Your task to perform on an android device: Open internet settings Image 0: 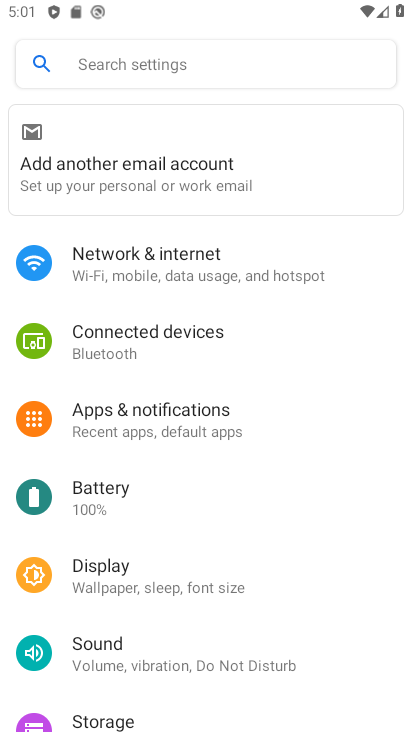
Step 0: drag from (282, 560) to (290, 253)
Your task to perform on an android device: Open internet settings Image 1: 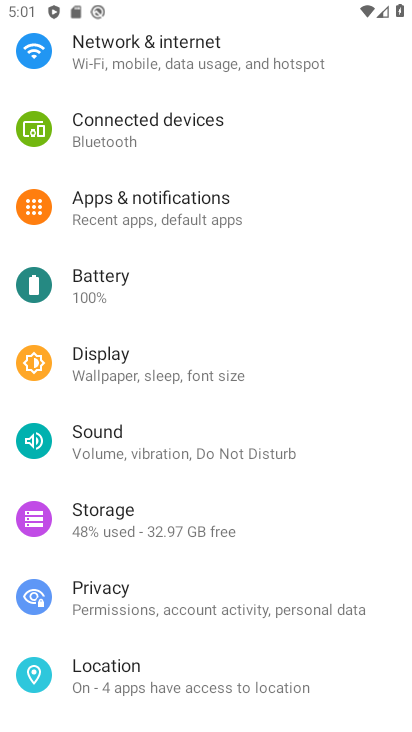
Step 1: drag from (299, 225) to (281, 495)
Your task to perform on an android device: Open internet settings Image 2: 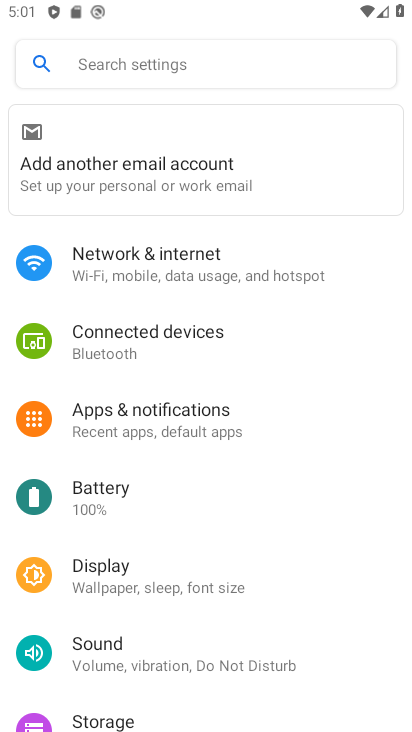
Step 2: click (235, 260)
Your task to perform on an android device: Open internet settings Image 3: 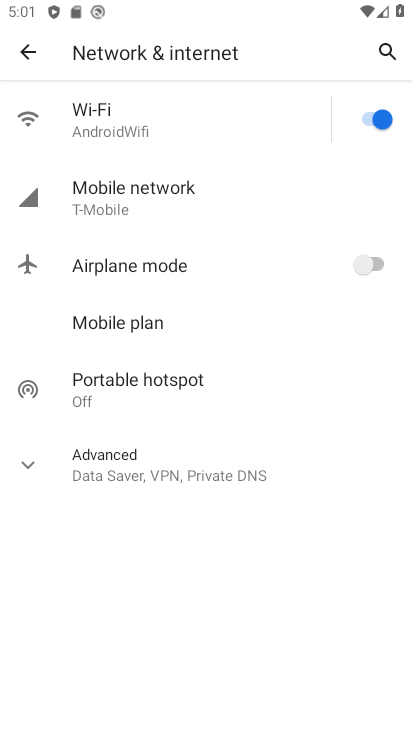
Step 3: click (24, 447)
Your task to perform on an android device: Open internet settings Image 4: 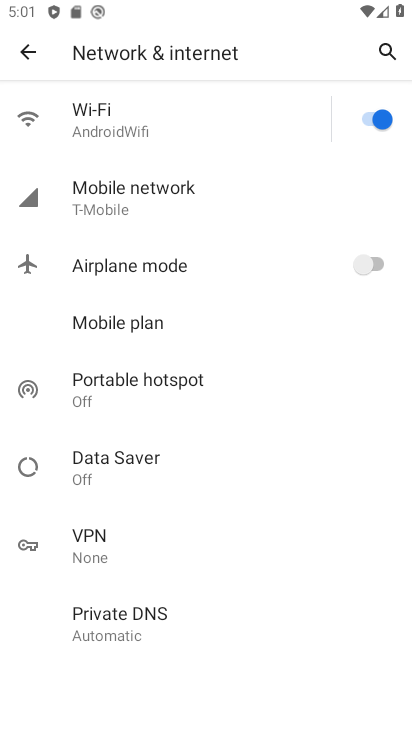
Step 4: task complete